Your task to perform on an android device: check storage Image 0: 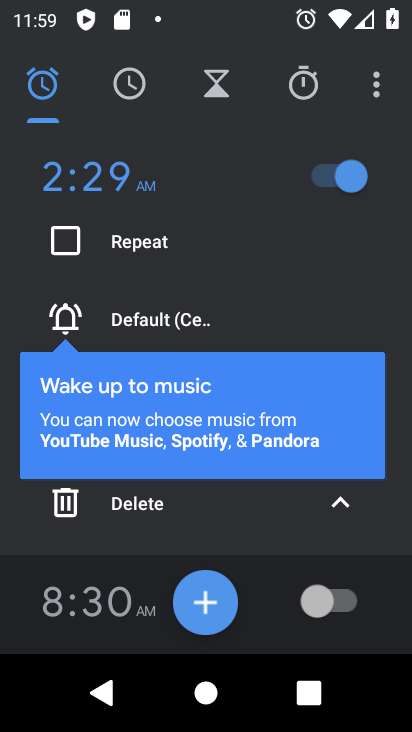
Step 0: press home button
Your task to perform on an android device: check storage Image 1: 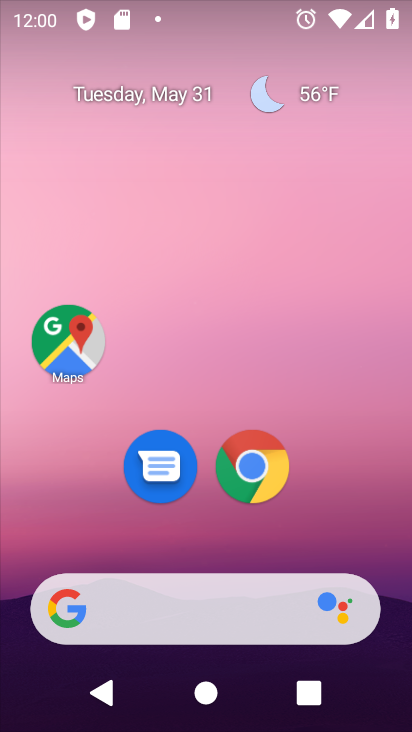
Step 1: drag from (219, 592) to (176, 25)
Your task to perform on an android device: check storage Image 2: 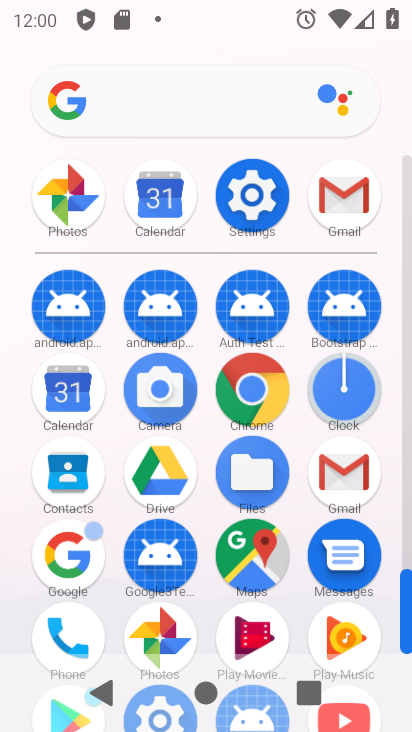
Step 2: click (250, 185)
Your task to perform on an android device: check storage Image 3: 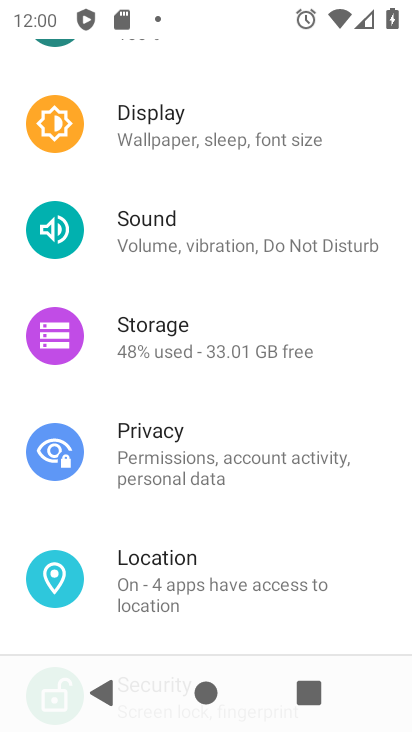
Step 3: click (173, 329)
Your task to perform on an android device: check storage Image 4: 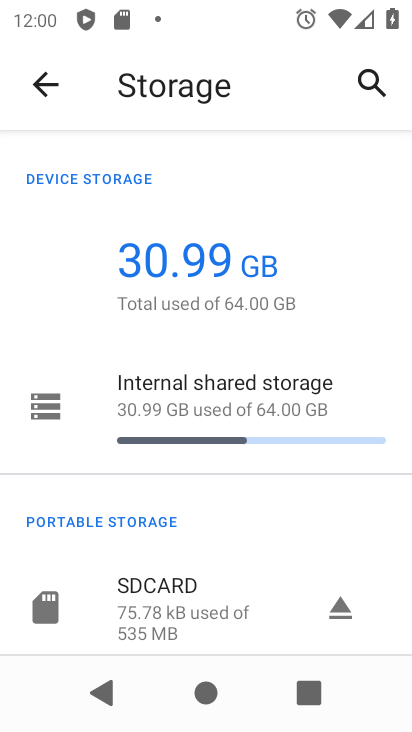
Step 4: click (225, 419)
Your task to perform on an android device: check storage Image 5: 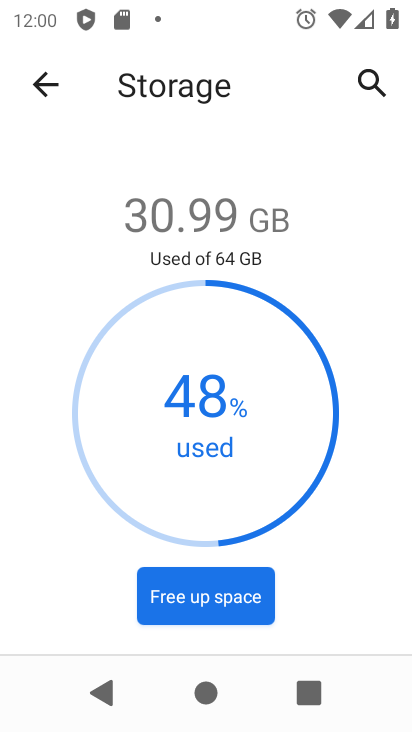
Step 5: task complete